Your task to perform on an android device: What is the recent news? Image 0: 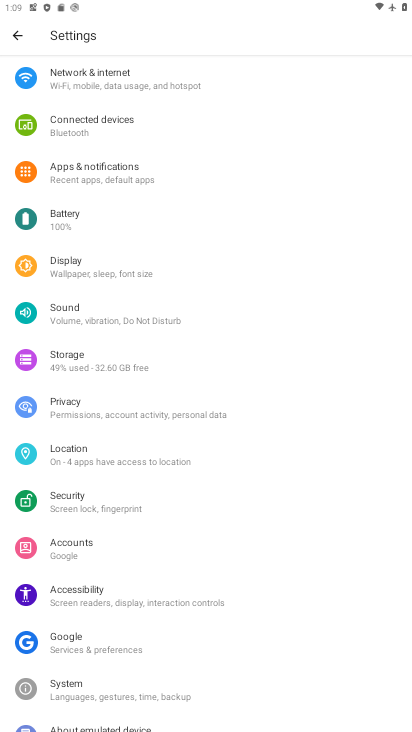
Step 0: press home button
Your task to perform on an android device: What is the recent news? Image 1: 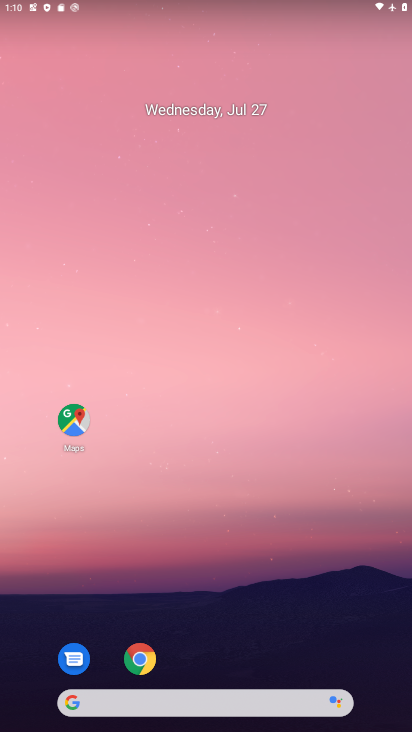
Step 1: drag from (285, 531) to (237, 131)
Your task to perform on an android device: What is the recent news? Image 2: 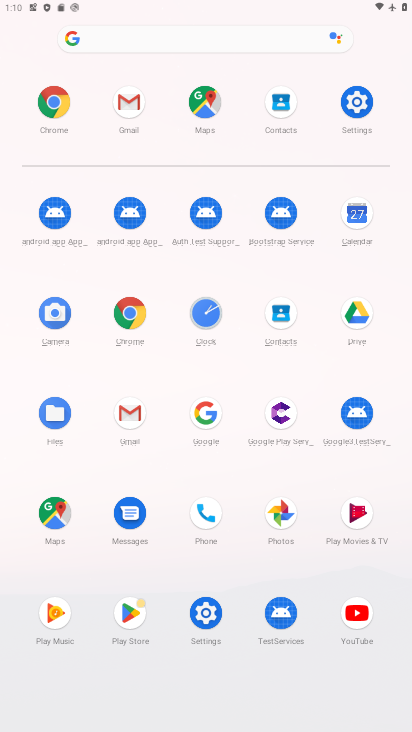
Step 2: click (206, 422)
Your task to perform on an android device: What is the recent news? Image 3: 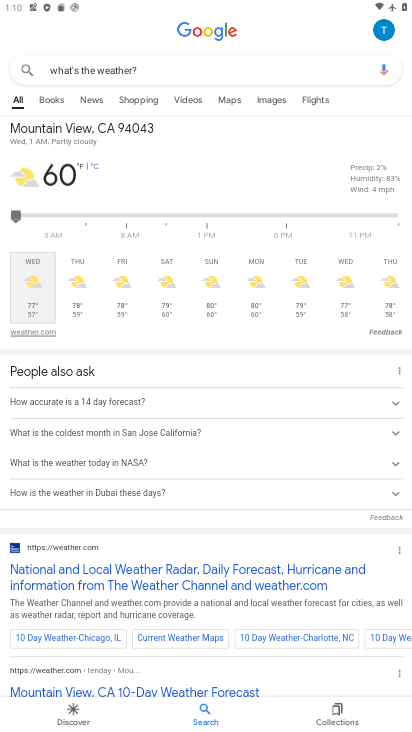
Step 3: task complete